Your task to perform on an android device: Search for pizza restaurants on Maps Image 0: 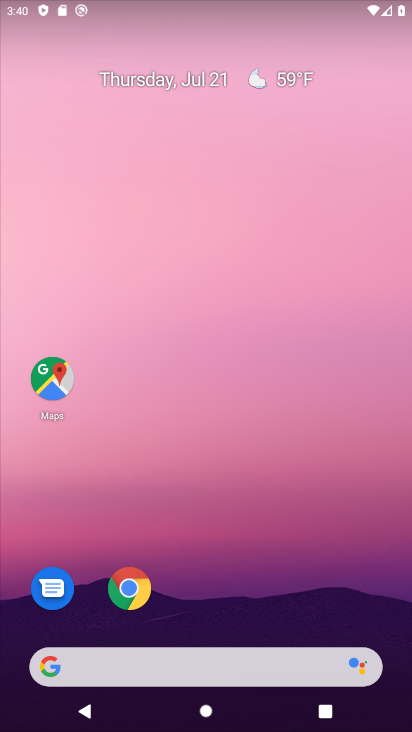
Step 0: click (47, 371)
Your task to perform on an android device: Search for pizza restaurants on Maps Image 1: 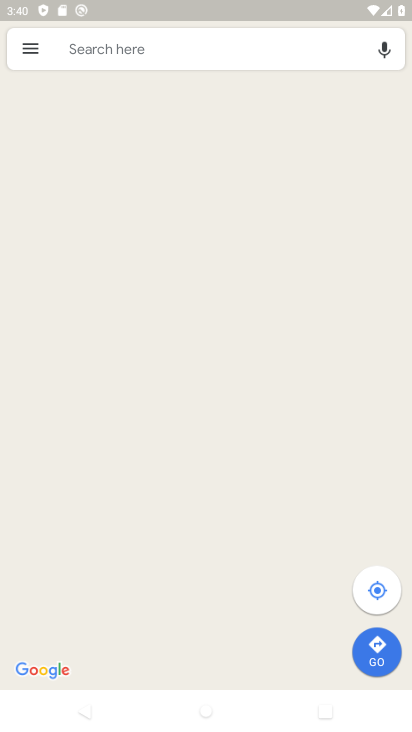
Step 1: click (168, 56)
Your task to perform on an android device: Search for pizza restaurants on Maps Image 2: 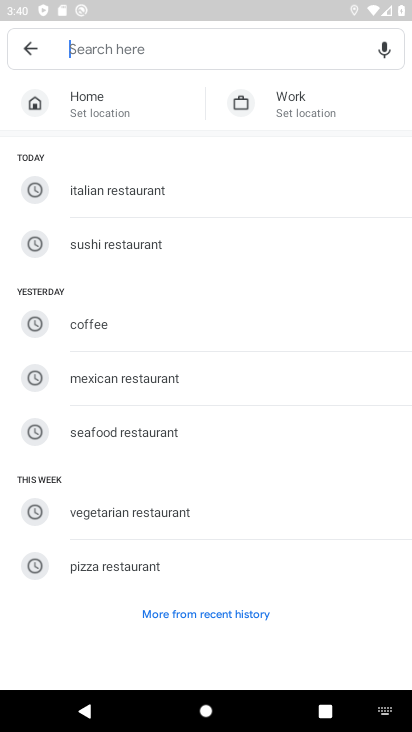
Step 2: type "Pizza restaurants"
Your task to perform on an android device: Search for pizza restaurants on Maps Image 3: 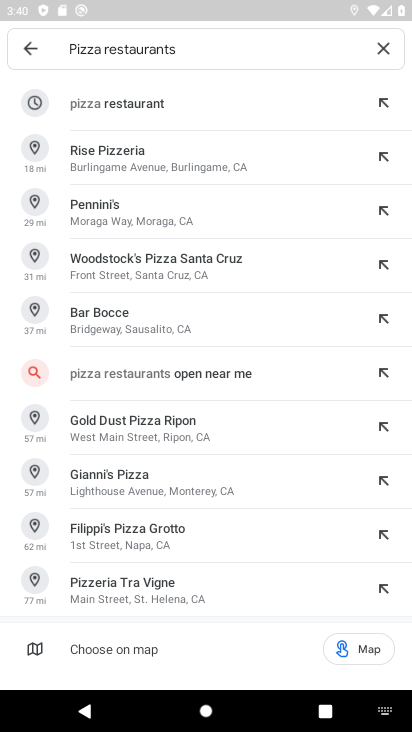
Step 3: click (160, 99)
Your task to perform on an android device: Search for pizza restaurants on Maps Image 4: 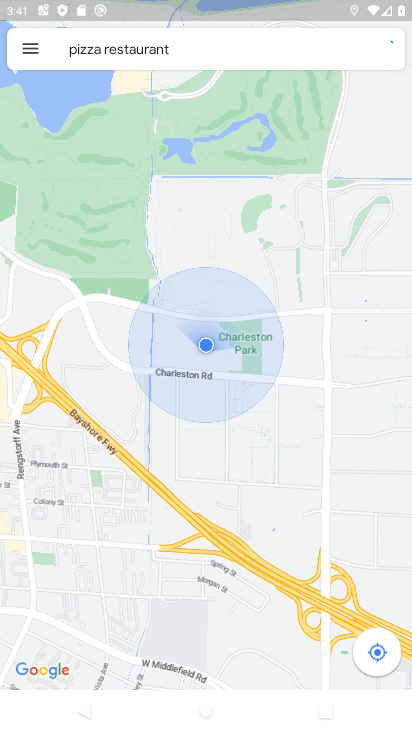
Step 4: task complete